Your task to perform on an android device: refresh tabs in the chrome app Image 0: 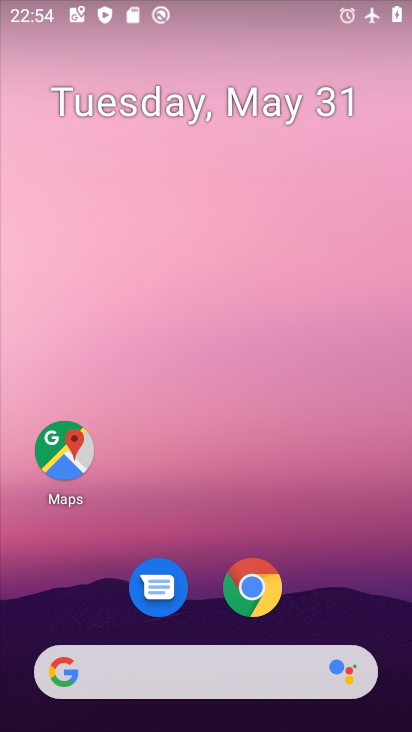
Step 0: drag from (339, 617) to (383, 171)
Your task to perform on an android device: refresh tabs in the chrome app Image 1: 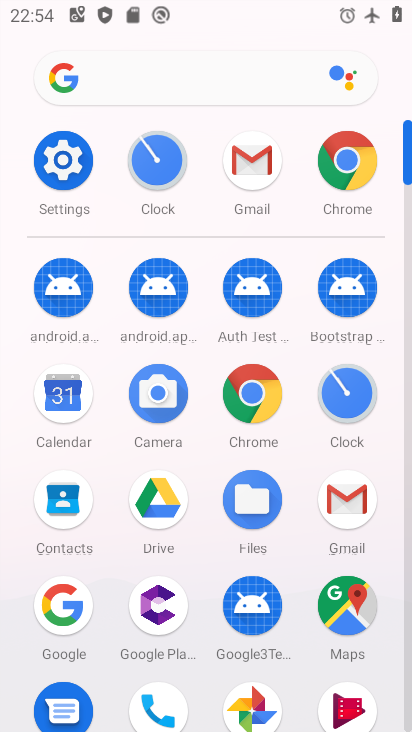
Step 1: drag from (296, 556) to (308, 226)
Your task to perform on an android device: refresh tabs in the chrome app Image 2: 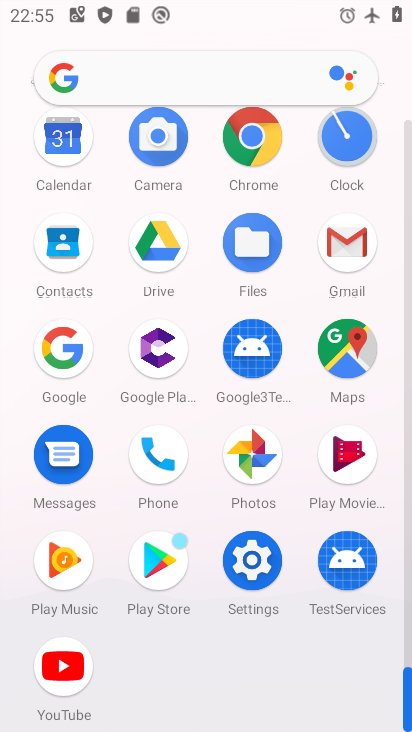
Step 2: drag from (203, 214) to (199, 379)
Your task to perform on an android device: refresh tabs in the chrome app Image 3: 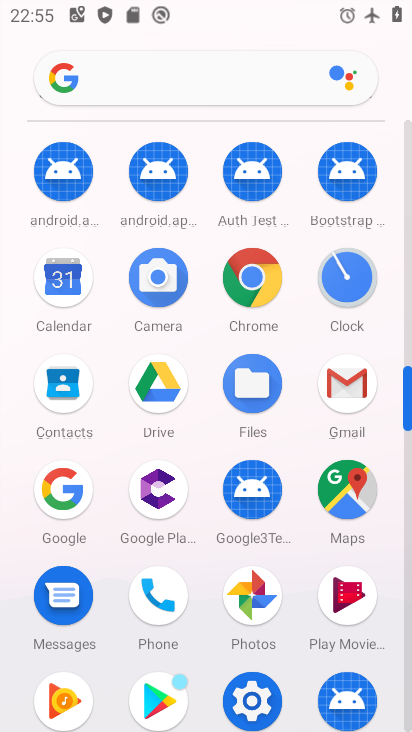
Step 3: click (255, 257)
Your task to perform on an android device: refresh tabs in the chrome app Image 4: 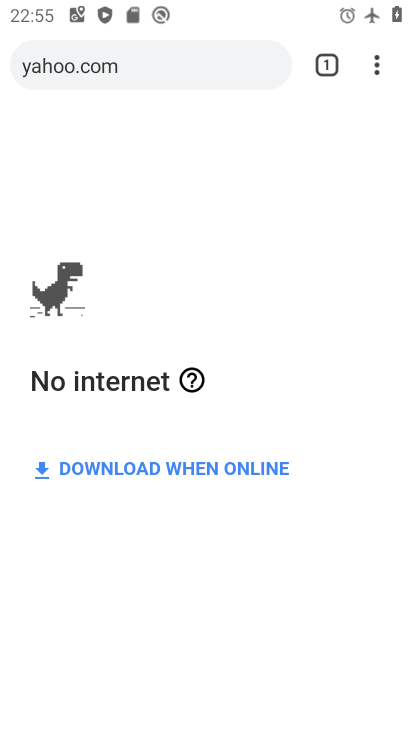
Step 4: click (376, 72)
Your task to perform on an android device: refresh tabs in the chrome app Image 5: 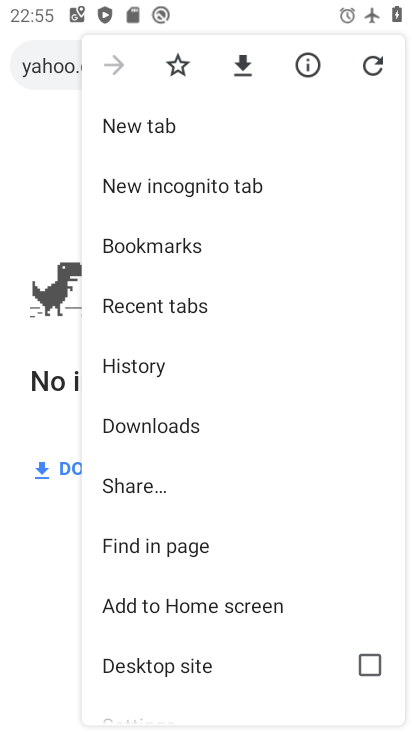
Step 5: click (378, 60)
Your task to perform on an android device: refresh tabs in the chrome app Image 6: 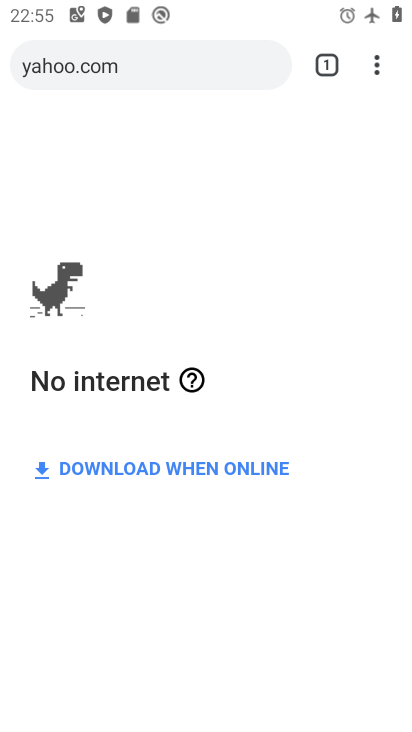
Step 6: task complete